Your task to perform on an android device: Check the news Image 0: 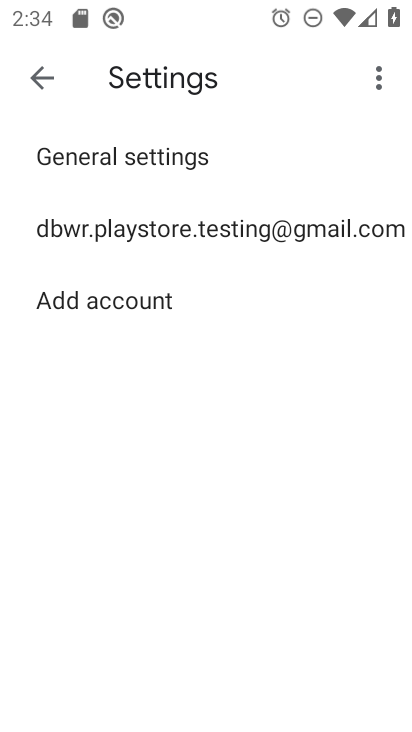
Step 0: press home button
Your task to perform on an android device: Check the news Image 1: 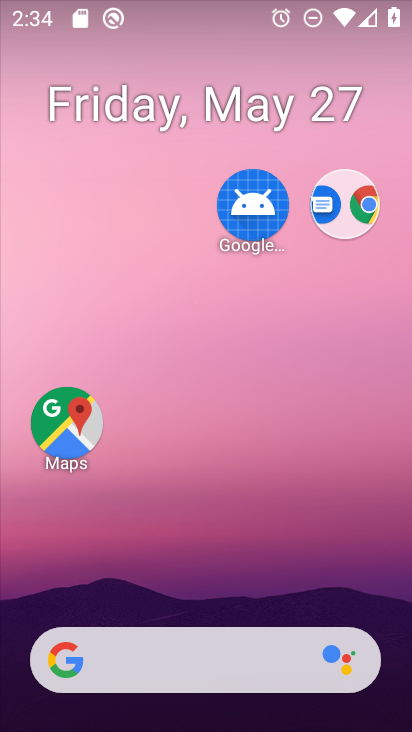
Step 1: drag from (308, 569) to (353, 198)
Your task to perform on an android device: Check the news Image 2: 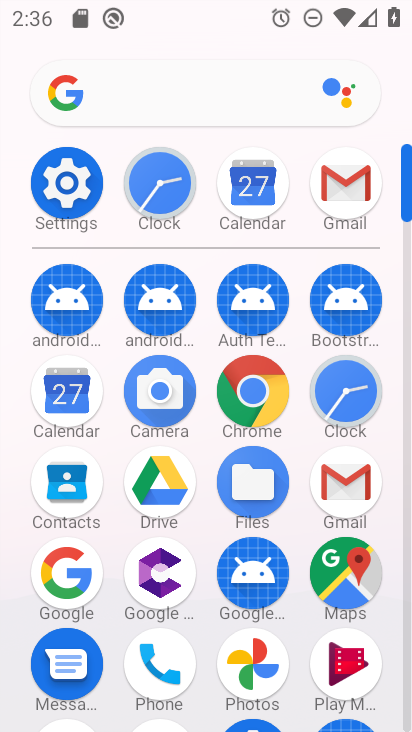
Step 2: click (75, 589)
Your task to perform on an android device: Check the news Image 3: 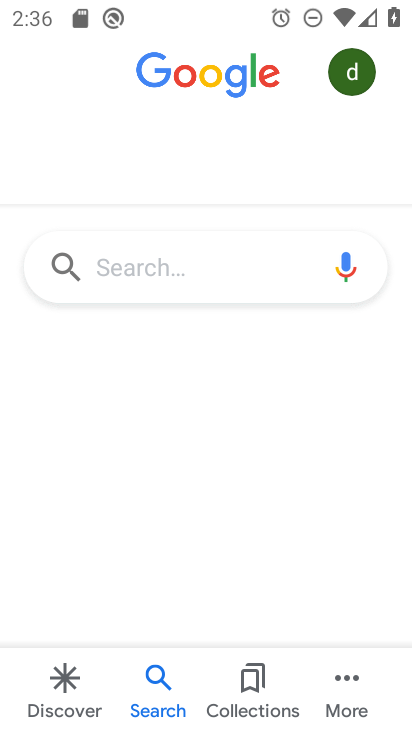
Step 3: click (62, 692)
Your task to perform on an android device: Check the news Image 4: 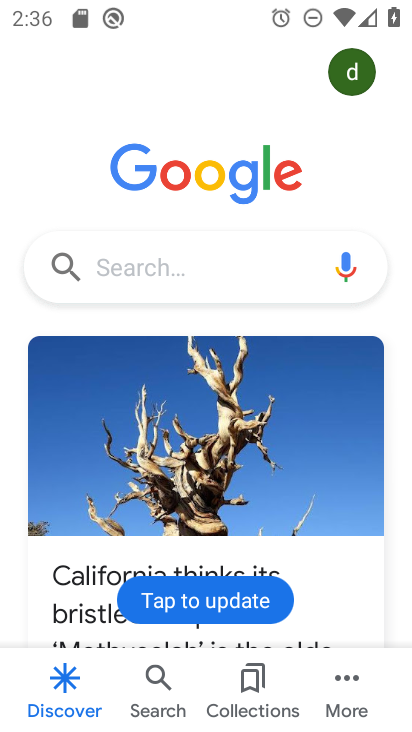
Step 4: click (202, 277)
Your task to perform on an android device: Check the news Image 5: 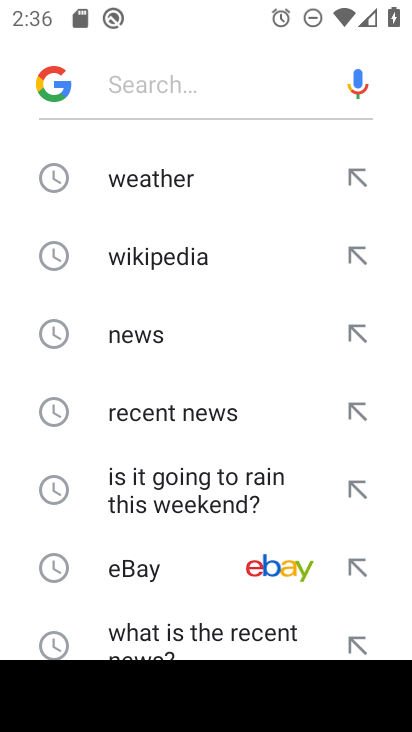
Step 5: click (206, 331)
Your task to perform on an android device: Check the news Image 6: 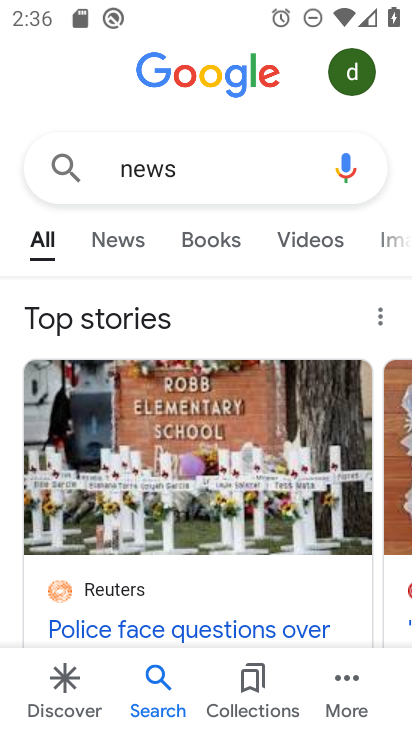
Step 6: click (126, 243)
Your task to perform on an android device: Check the news Image 7: 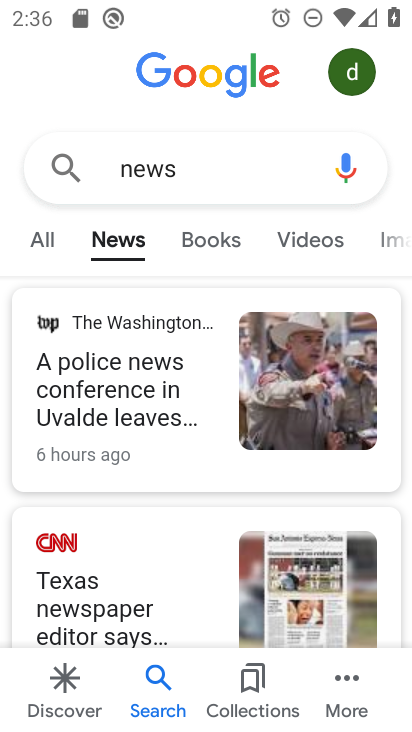
Step 7: task complete